Your task to perform on an android device: delete location history Image 0: 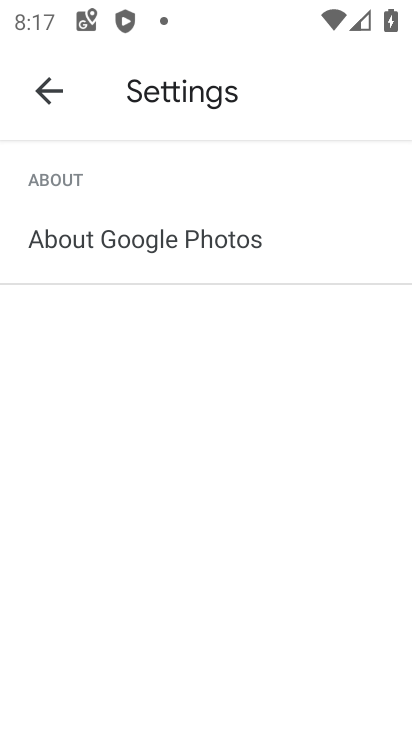
Step 0: press home button
Your task to perform on an android device: delete location history Image 1: 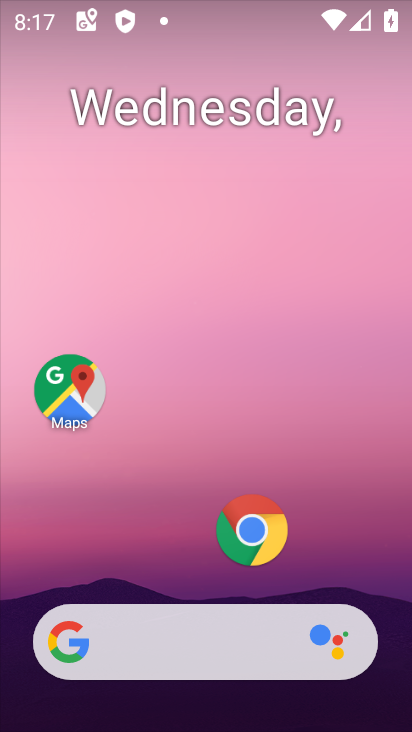
Step 1: click (47, 356)
Your task to perform on an android device: delete location history Image 2: 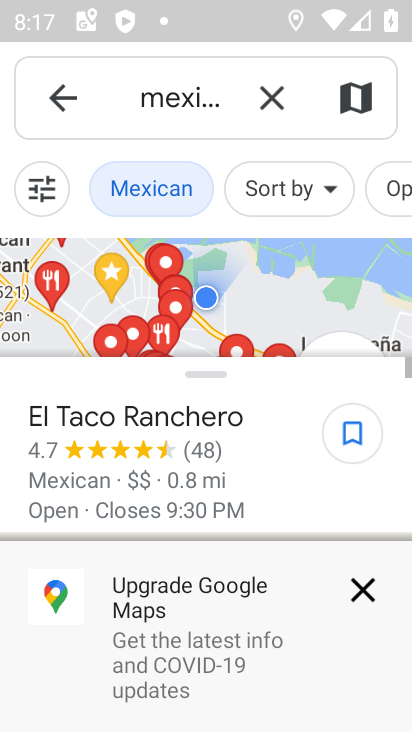
Step 2: click (56, 96)
Your task to perform on an android device: delete location history Image 3: 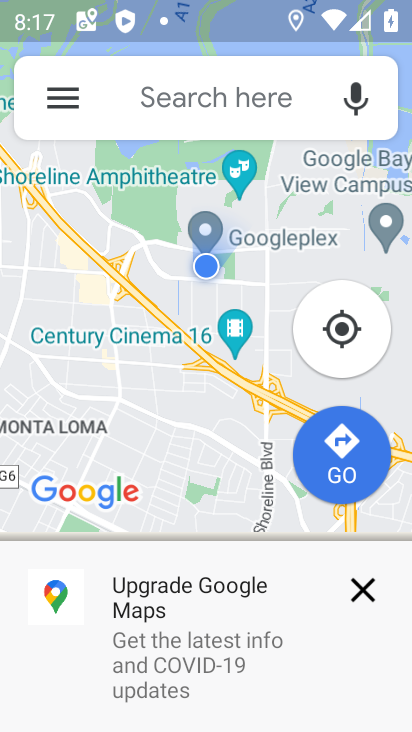
Step 3: click (46, 90)
Your task to perform on an android device: delete location history Image 4: 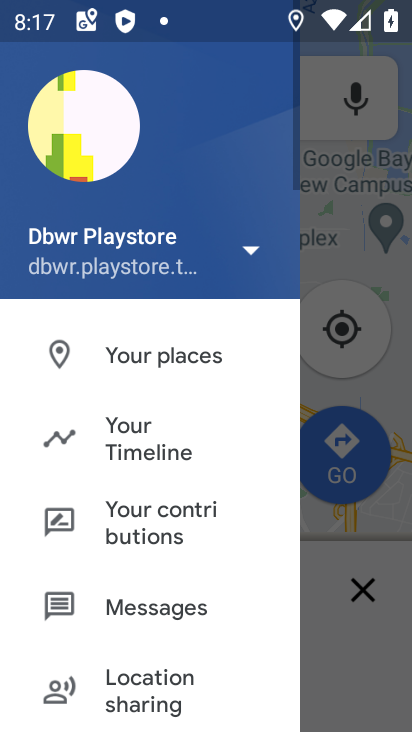
Step 4: click (171, 438)
Your task to perform on an android device: delete location history Image 5: 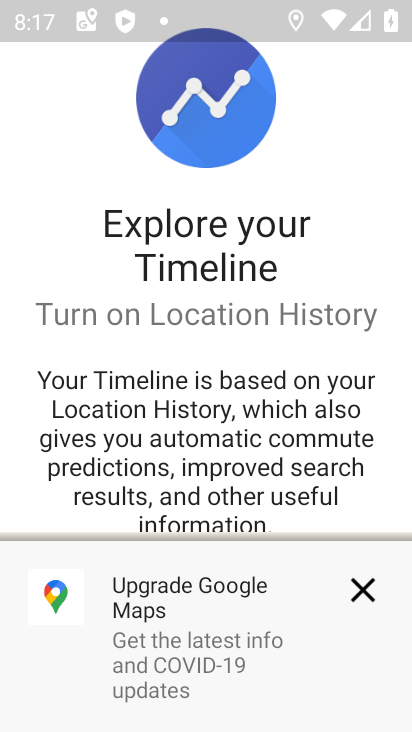
Step 5: click (357, 589)
Your task to perform on an android device: delete location history Image 6: 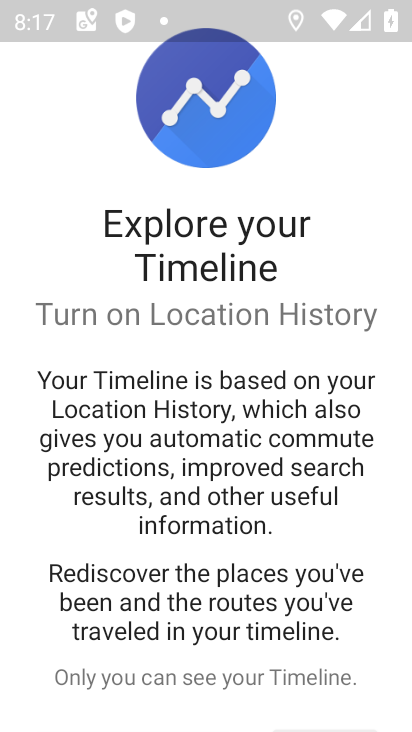
Step 6: drag from (254, 576) to (267, 124)
Your task to perform on an android device: delete location history Image 7: 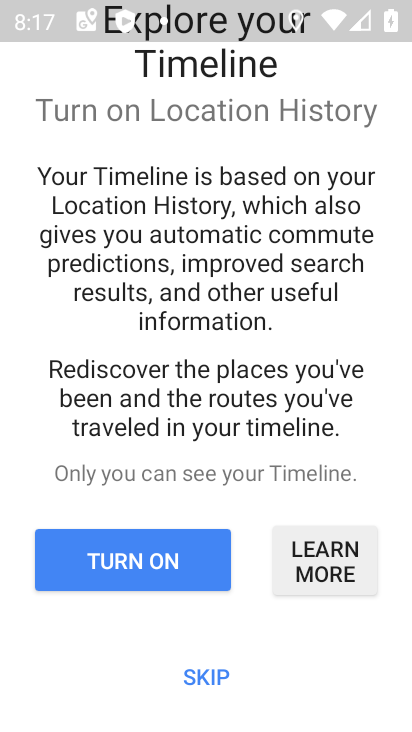
Step 7: click (173, 672)
Your task to perform on an android device: delete location history Image 8: 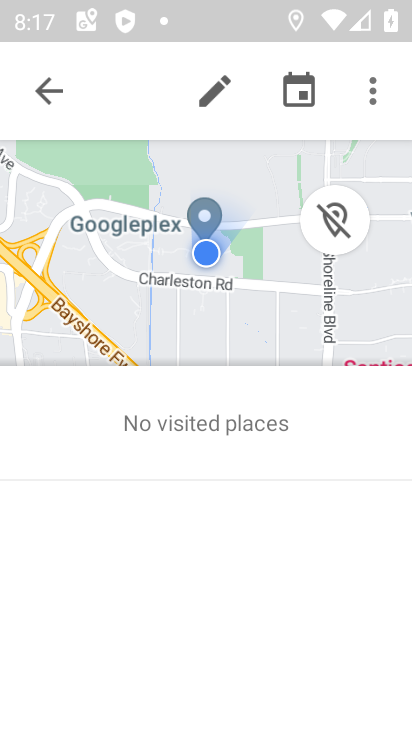
Step 8: click (371, 81)
Your task to perform on an android device: delete location history Image 9: 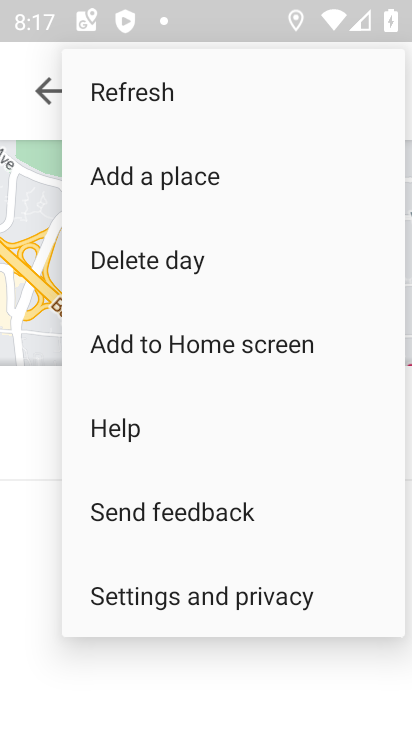
Step 9: click (212, 597)
Your task to perform on an android device: delete location history Image 10: 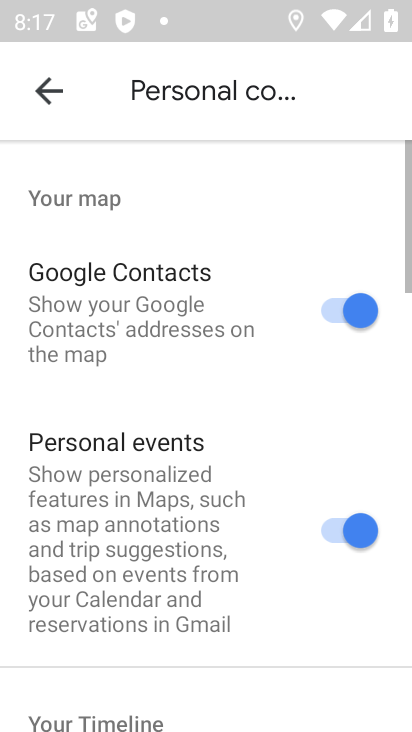
Step 10: drag from (204, 570) to (211, 87)
Your task to perform on an android device: delete location history Image 11: 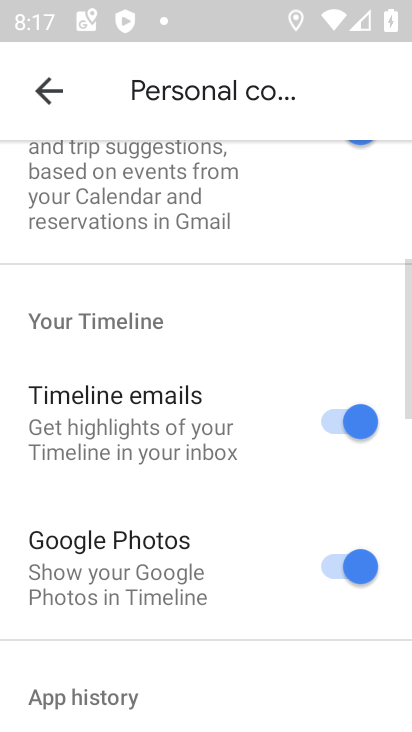
Step 11: drag from (169, 615) to (227, 21)
Your task to perform on an android device: delete location history Image 12: 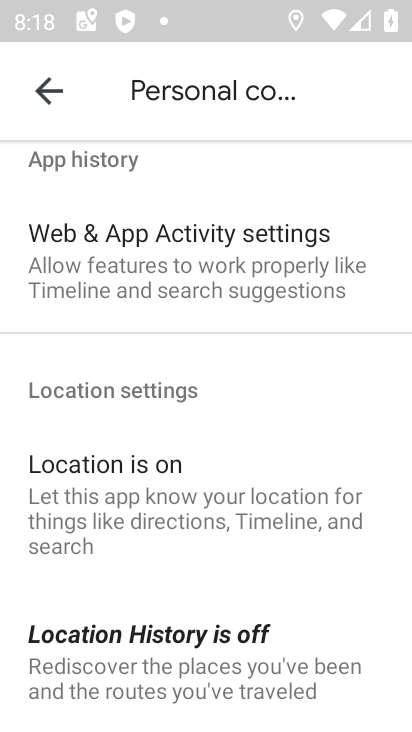
Step 12: drag from (184, 577) to (184, 103)
Your task to perform on an android device: delete location history Image 13: 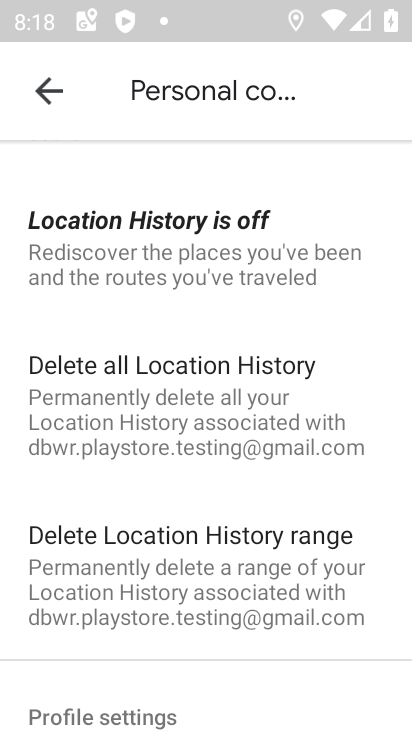
Step 13: click (118, 425)
Your task to perform on an android device: delete location history Image 14: 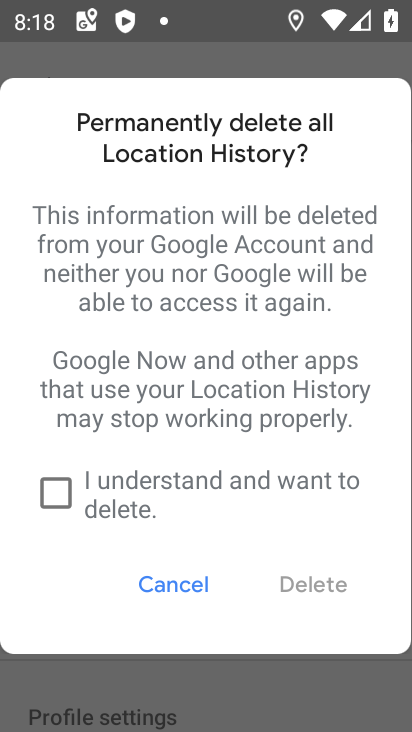
Step 14: click (75, 476)
Your task to perform on an android device: delete location history Image 15: 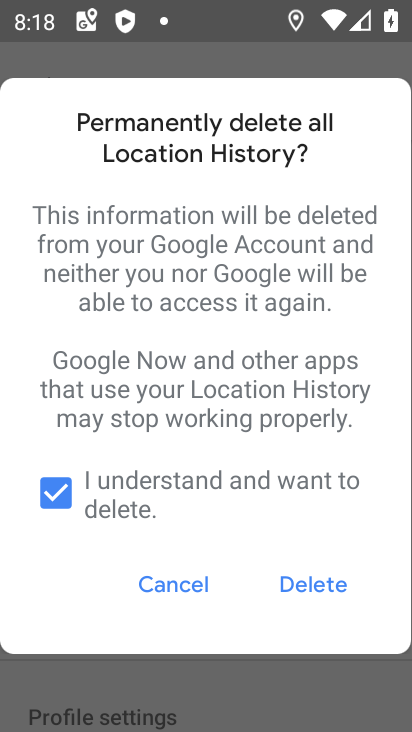
Step 15: click (306, 583)
Your task to perform on an android device: delete location history Image 16: 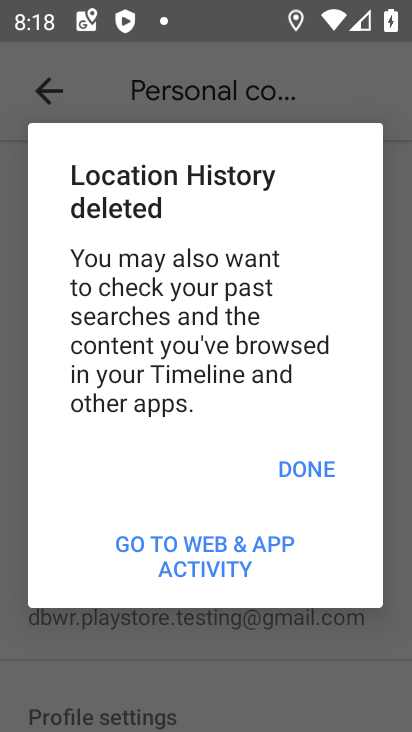
Step 16: click (321, 461)
Your task to perform on an android device: delete location history Image 17: 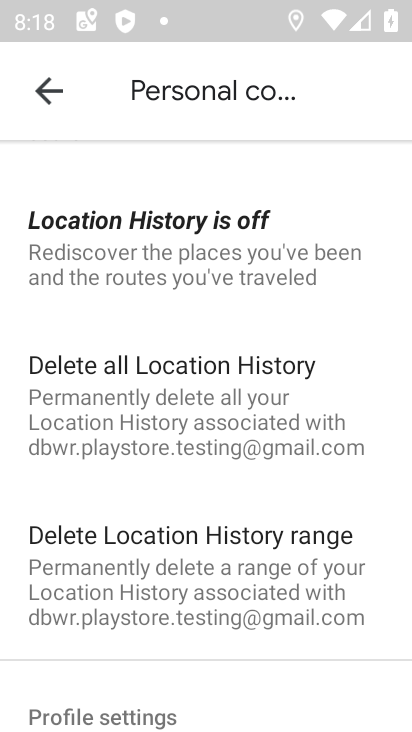
Step 17: task complete